Your task to perform on an android device: turn on showing notifications on the lock screen Image 0: 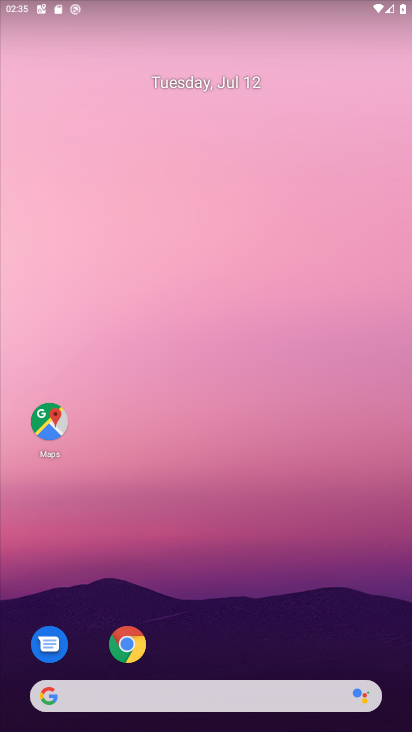
Step 0: drag from (204, 669) to (208, 29)
Your task to perform on an android device: turn on showing notifications on the lock screen Image 1: 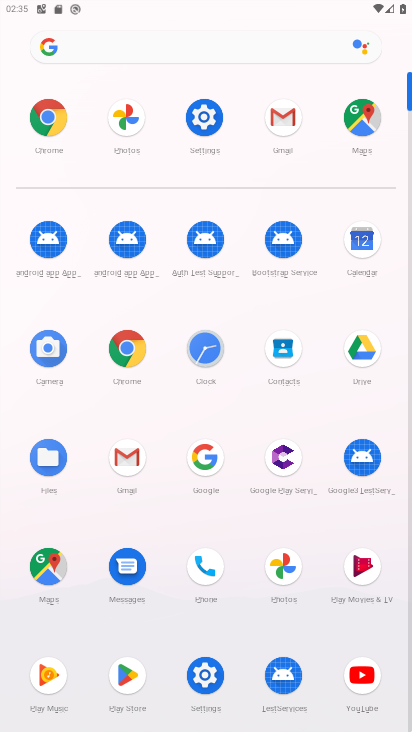
Step 1: click (181, 120)
Your task to perform on an android device: turn on showing notifications on the lock screen Image 2: 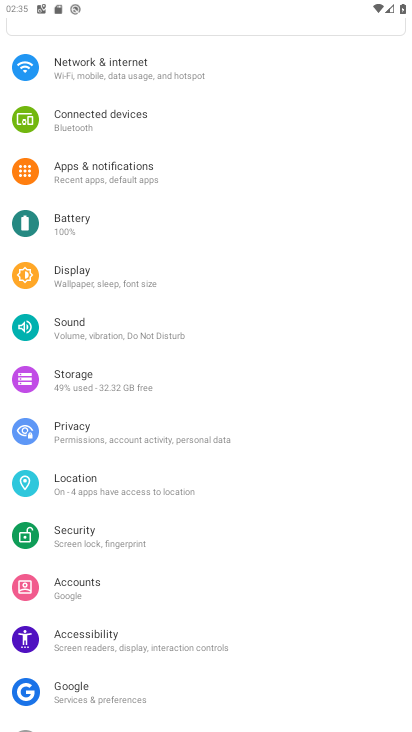
Step 2: click (129, 172)
Your task to perform on an android device: turn on showing notifications on the lock screen Image 3: 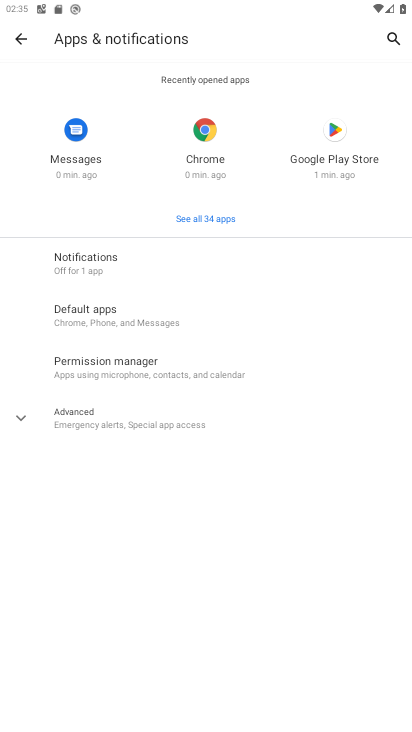
Step 3: click (103, 252)
Your task to perform on an android device: turn on showing notifications on the lock screen Image 4: 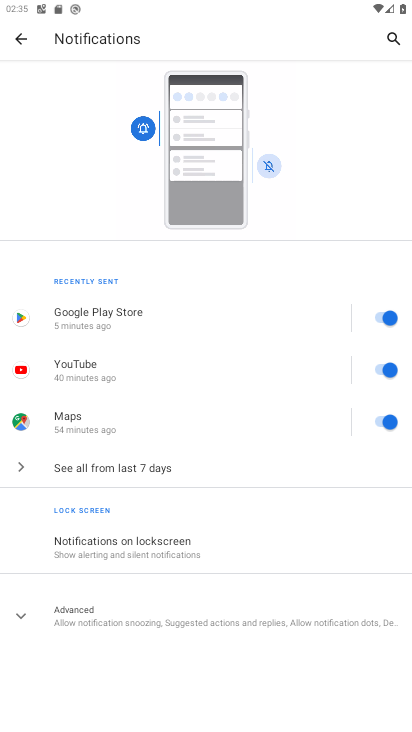
Step 4: click (114, 548)
Your task to perform on an android device: turn on showing notifications on the lock screen Image 5: 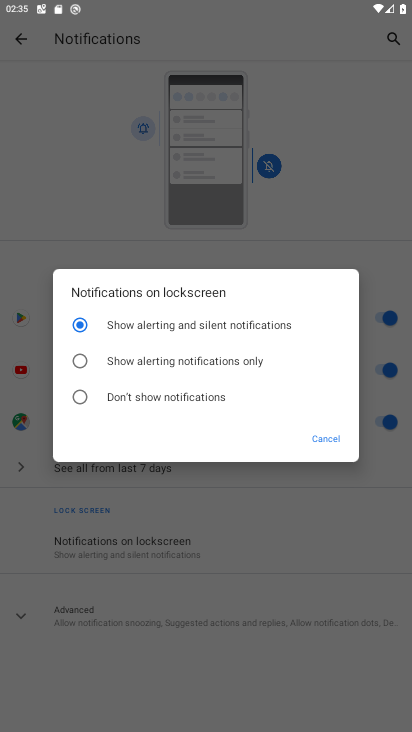
Step 5: click (128, 323)
Your task to perform on an android device: turn on showing notifications on the lock screen Image 6: 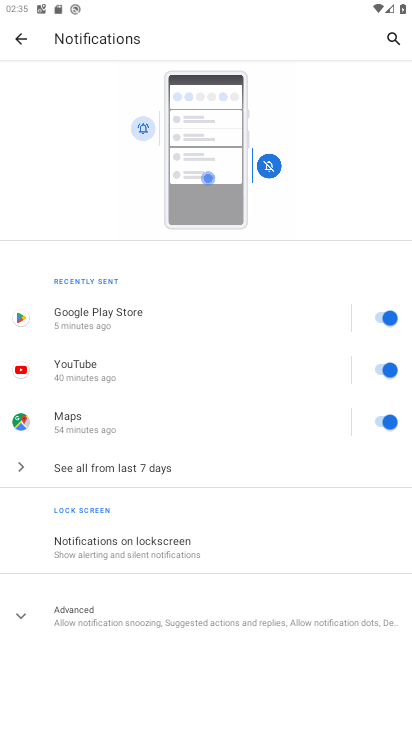
Step 6: task complete